Your task to perform on an android device: turn off data saver in the chrome app Image 0: 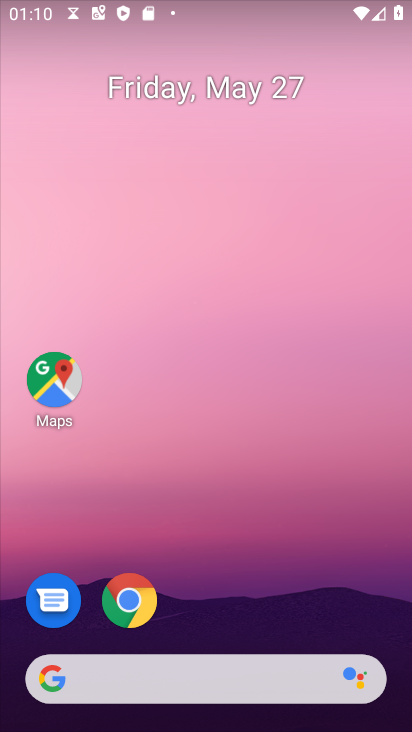
Step 0: click (137, 600)
Your task to perform on an android device: turn off data saver in the chrome app Image 1: 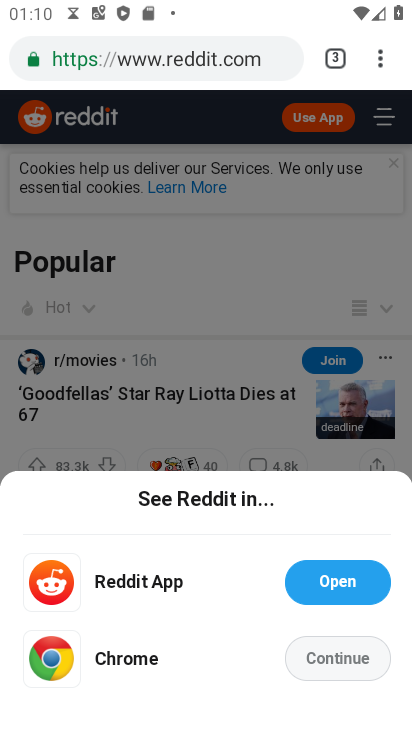
Step 1: press back button
Your task to perform on an android device: turn off data saver in the chrome app Image 2: 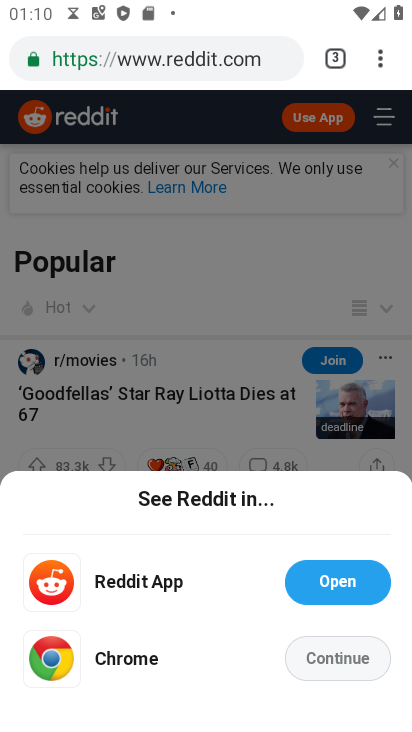
Step 2: press back button
Your task to perform on an android device: turn off data saver in the chrome app Image 3: 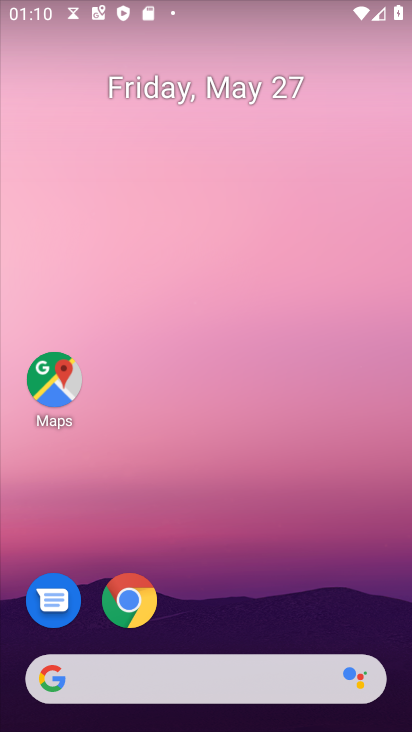
Step 3: click (121, 600)
Your task to perform on an android device: turn off data saver in the chrome app Image 4: 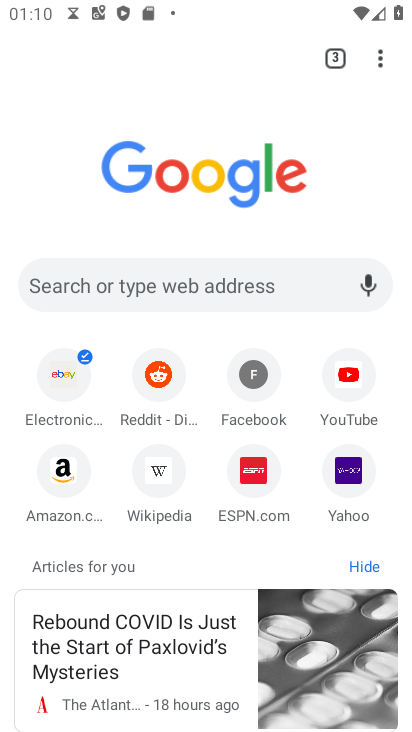
Step 4: click (377, 46)
Your task to perform on an android device: turn off data saver in the chrome app Image 5: 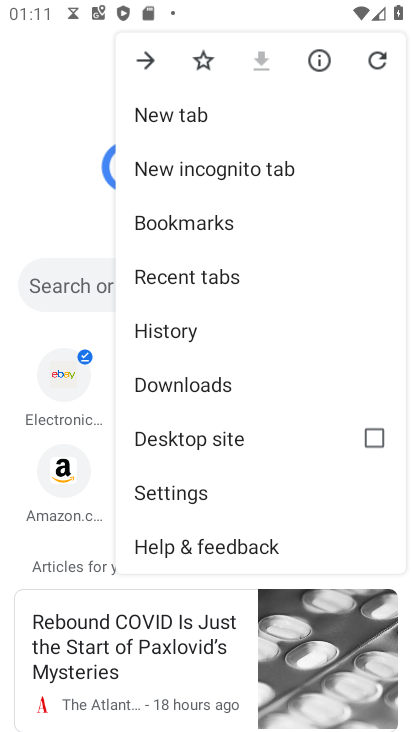
Step 5: click (156, 487)
Your task to perform on an android device: turn off data saver in the chrome app Image 6: 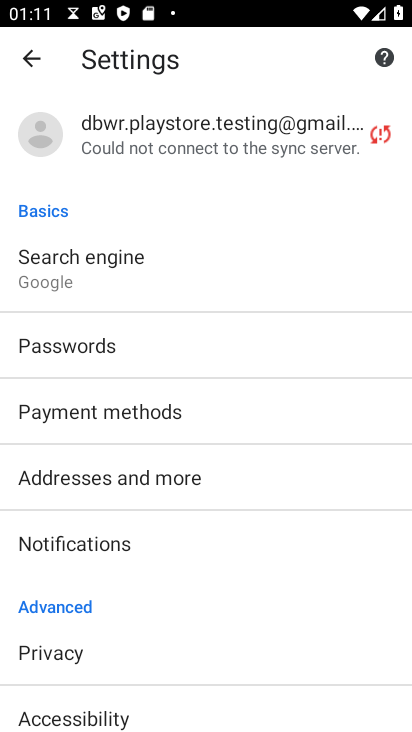
Step 6: drag from (226, 611) to (162, 92)
Your task to perform on an android device: turn off data saver in the chrome app Image 7: 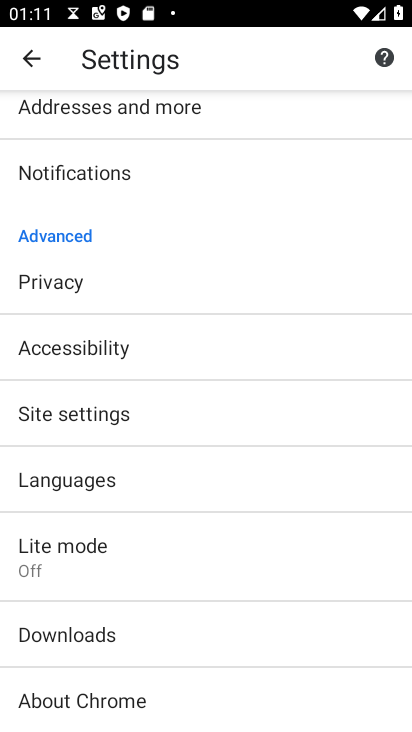
Step 7: click (140, 416)
Your task to perform on an android device: turn off data saver in the chrome app Image 8: 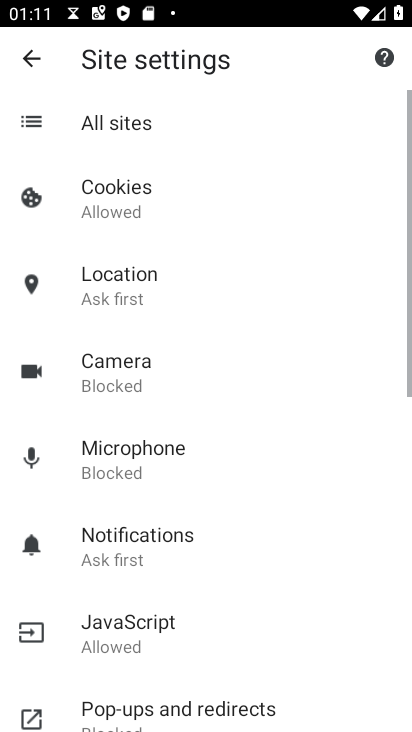
Step 8: drag from (284, 609) to (227, 120)
Your task to perform on an android device: turn off data saver in the chrome app Image 9: 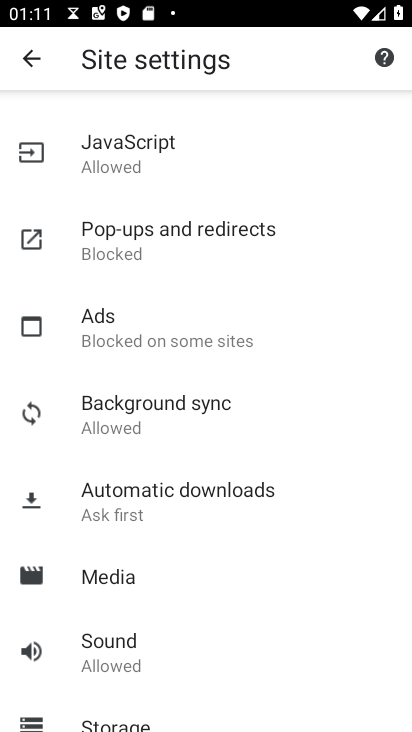
Step 9: drag from (271, 601) to (260, 190)
Your task to perform on an android device: turn off data saver in the chrome app Image 10: 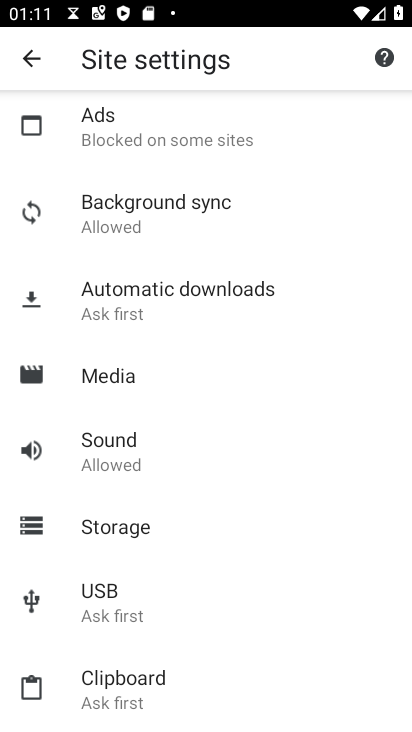
Step 10: press back button
Your task to perform on an android device: turn off data saver in the chrome app Image 11: 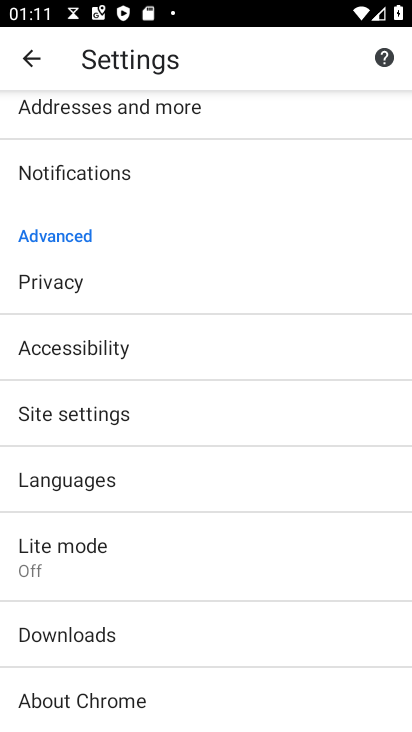
Step 11: click (189, 269)
Your task to perform on an android device: turn off data saver in the chrome app Image 12: 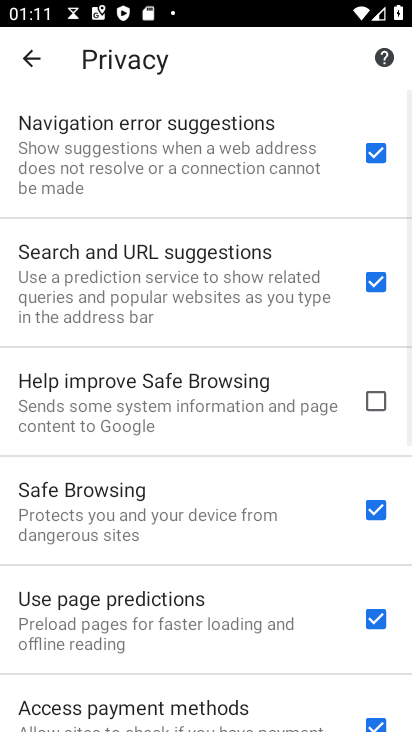
Step 12: drag from (257, 605) to (240, 193)
Your task to perform on an android device: turn off data saver in the chrome app Image 13: 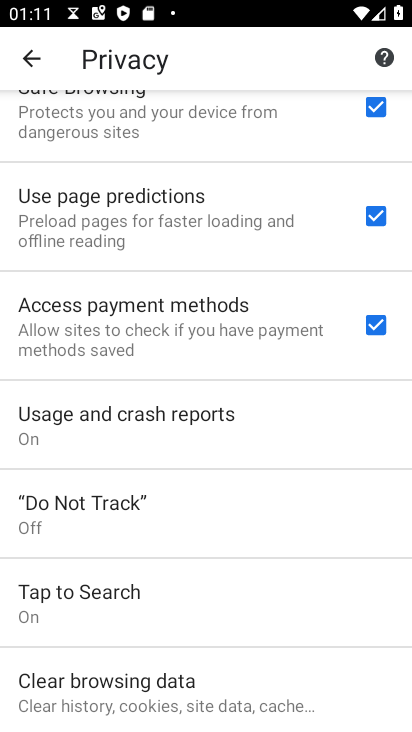
Step 13: drag from (176, 473) to (168, 162)
Your task to perform on an android device: turn off data saver in the chrome app Image 14: 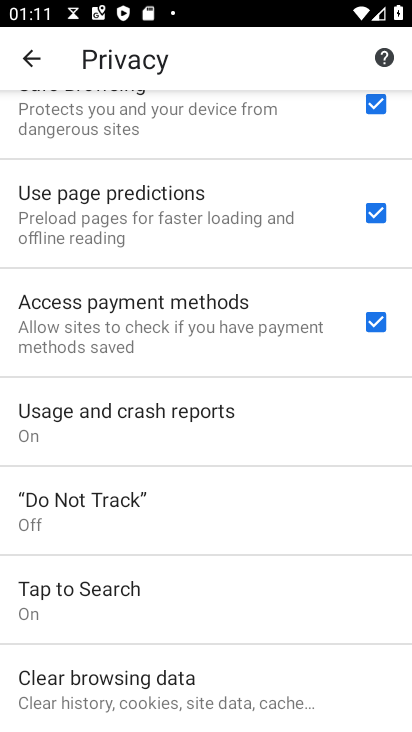
Step 14: press back button
Your task to perform on an android device: turn off data saver in the chrome app Image 15: 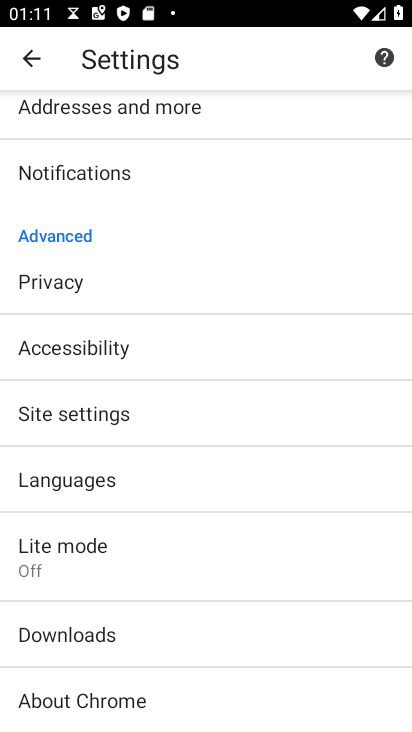
Step 15: drag from (205, 591) to (212, 282)
Your task to perform on an android device: turn off data saver in the chrome app Image 16: 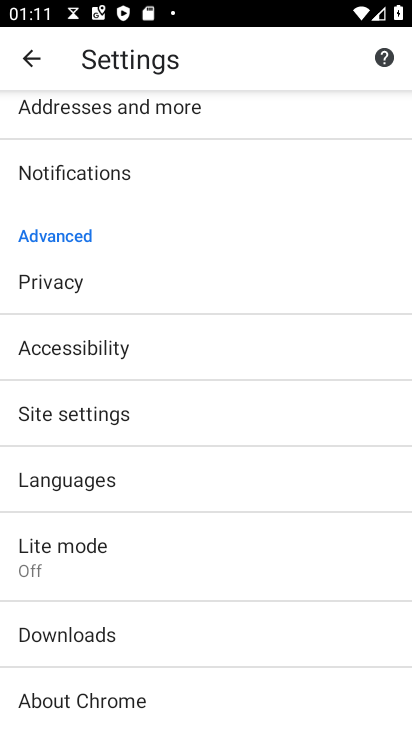
Step 16: drag from (212, 197) to (239, 677)
Your task to perform on an android device: turn off data saver in the chrome app Image 17: 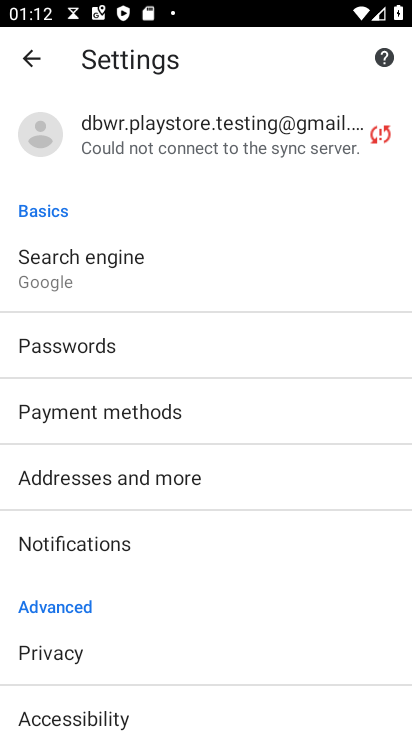
Step 17: drag from (202, 563) to (202, 265)
Your task to perform on an android device: turn off data saver in the chrome app Image 18: 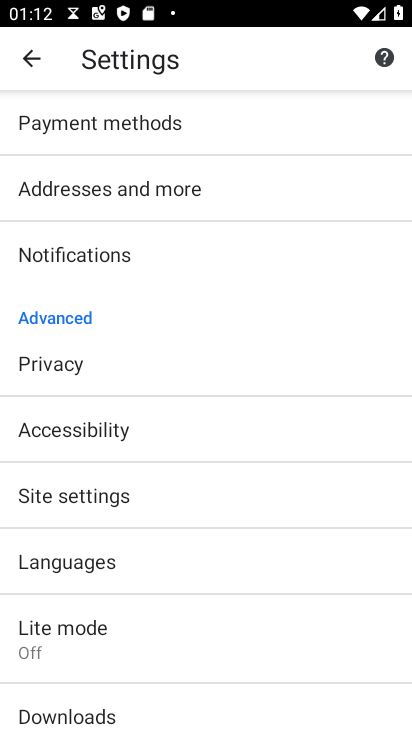
Step 18: click (227, 342)
Your task to perform on an android device: turn off data saver in the chrome app Image 19: 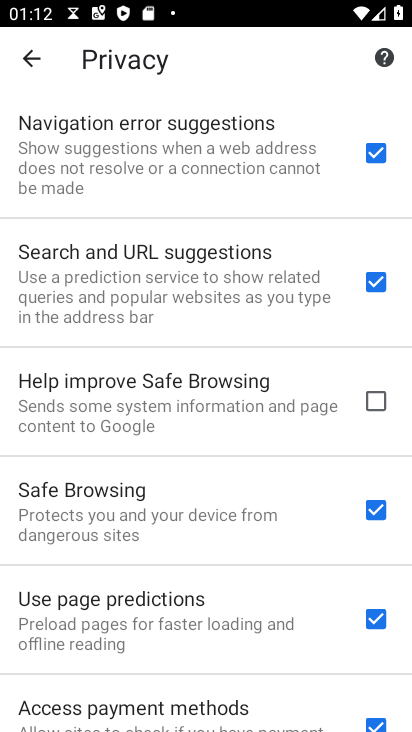
Step 19: drag from (237, 590) to (185, 206)
Your task to perform on an android device: turn off data saver in the chrome app Image 20: 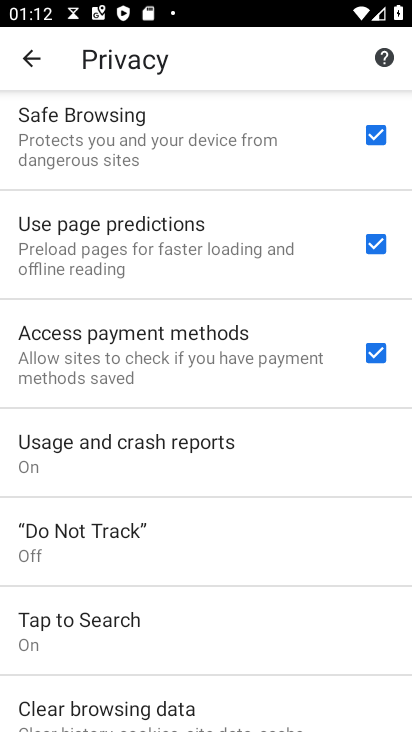
Step 20: drag from (207, 595) to (199, 221)
Your task to perform on an android device: turn off data saver in the chrome app Image 21: 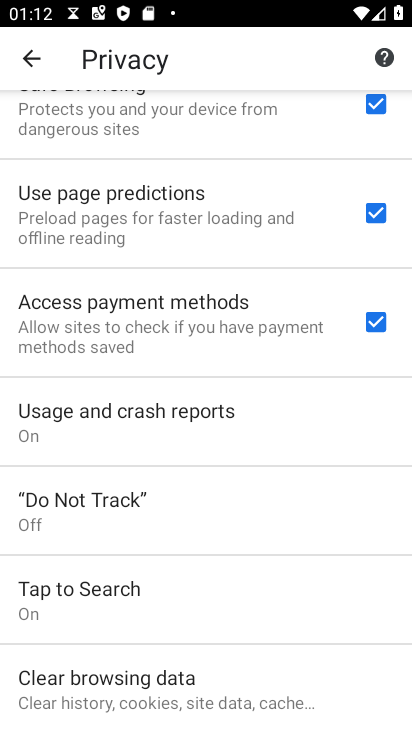
Step 21: click (242, 654)
Your task to perform on an android device: turn off data saver in the chrome app Image 22: 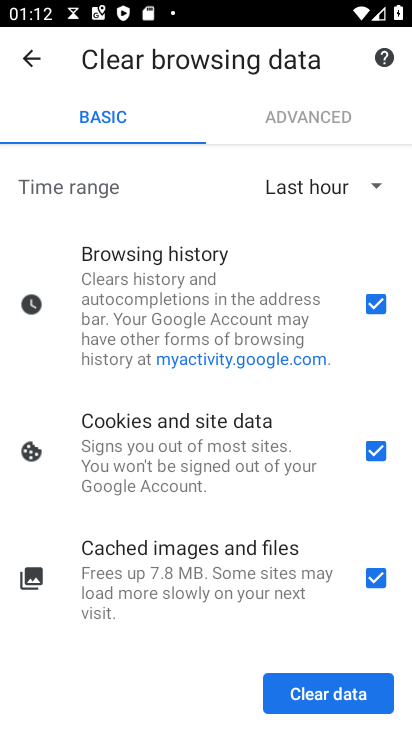
Step 22: task complete